Your task to perform on an android device: Go to Reddit.com Image 0: 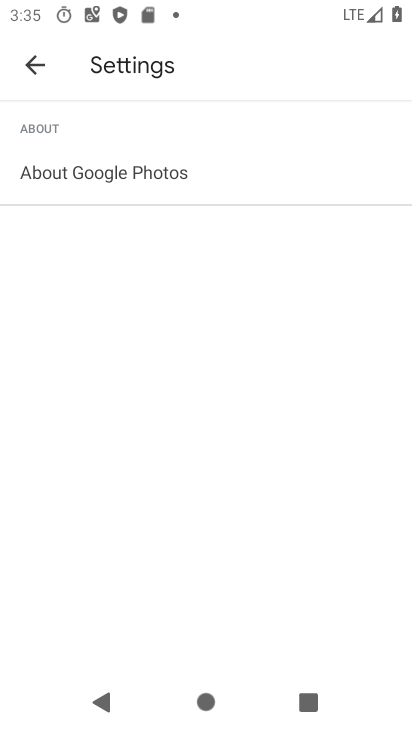
Step 0: press home button
Your task to perform on an android device: Go to Reddit.com Image 1: 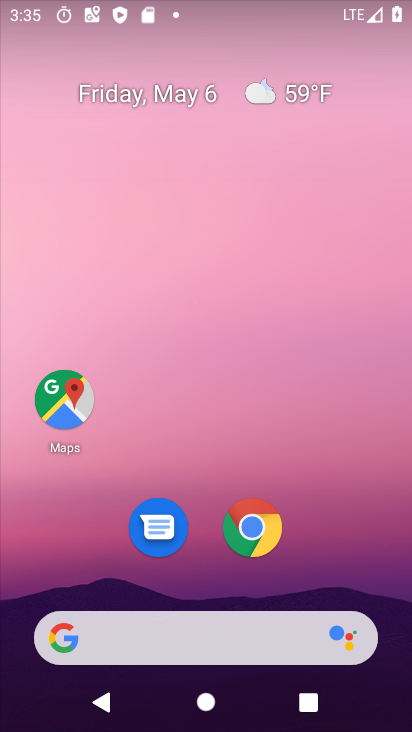
Step 1: click (266, 543)
Your task to perform on an android device: Go to Reddit.com Image 2: 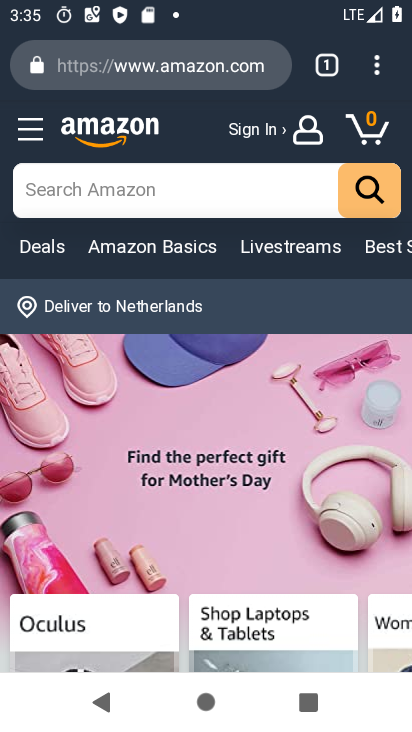
Step 2: click (193, 71)
Your task to perform on an android device: Go to Reddit.com Image 3: 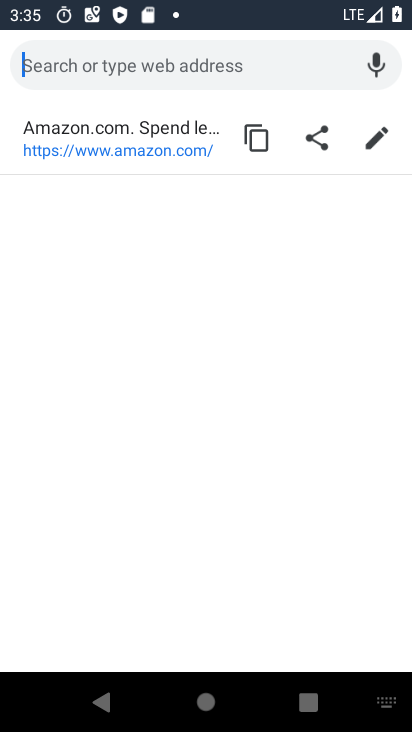
Step 3: type "www.reddit.com"
Your task to perform on an android device: Go to Reddit.com Image 4: 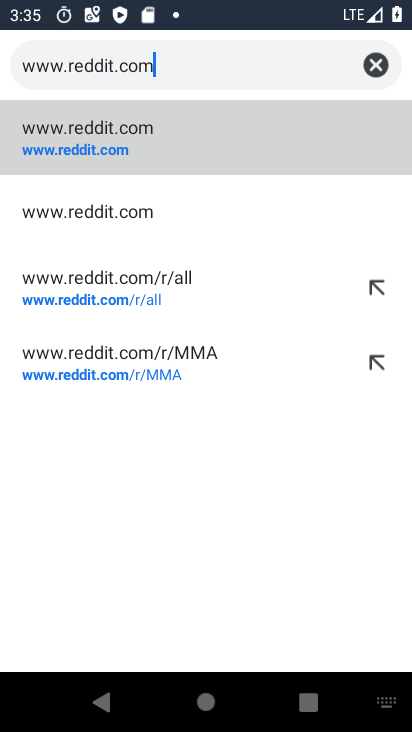
Step 4: click (60, 158)
Your task to perform on an android device: Go to Reddit.com Image 5: 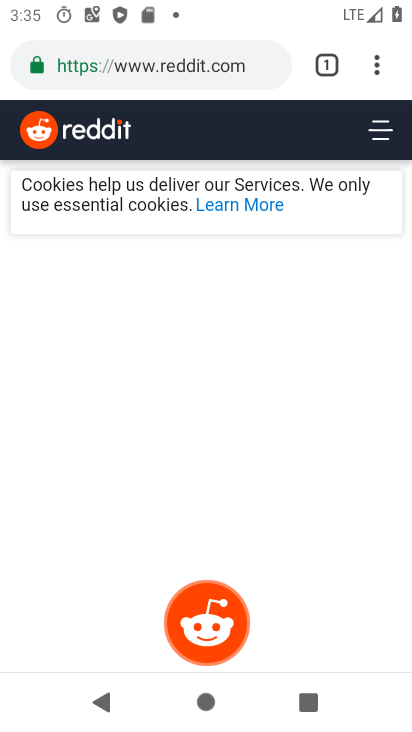
Step 5: task complete